Your task to perform on an android device: Go to accessibility settings Image 0: 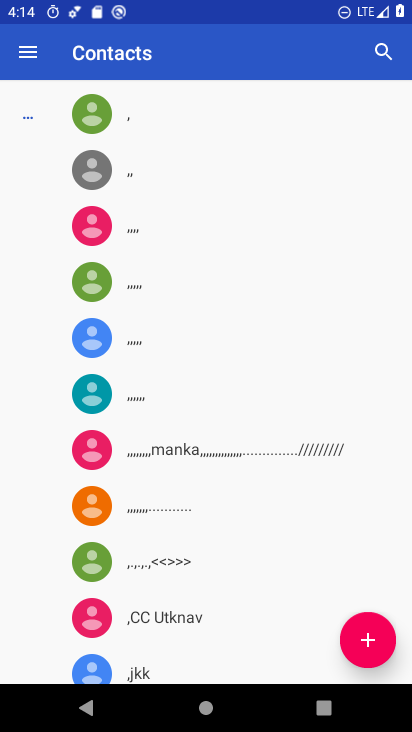
Step 0: press home button
Your task to perform on an android device: Go to accessibility settings Image 1: 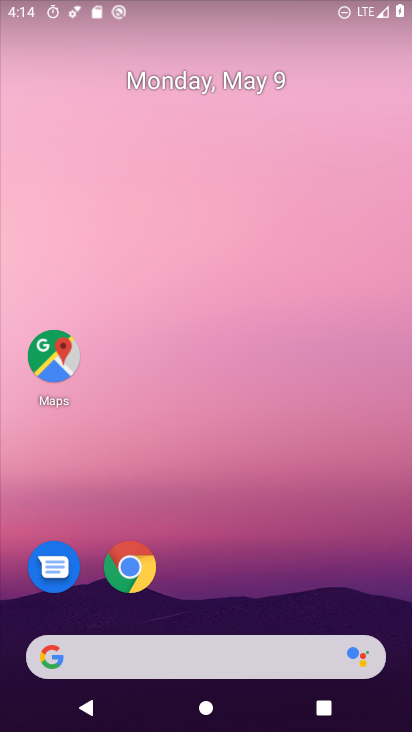
Step 1: drag from (234, 577) to (203, 103)
Your task to perform on an android device: Go to accessibility settings Image 2: 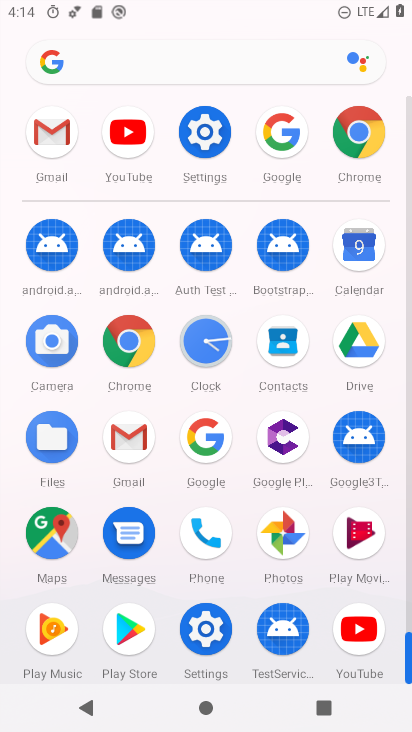
Step 2: click (210, 128)
Your task to perform on an android device: Go to accessibility settings Image 3: 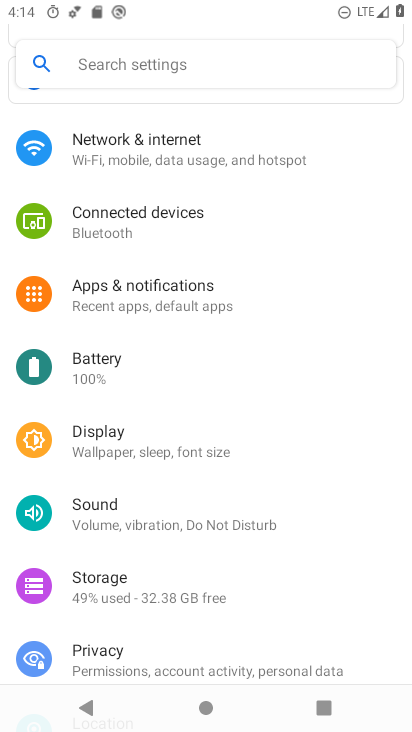
Step 3: drag from (276, 626) to (250, 256)
Your task to perform on an android device: Go to accessibility settings Image 4: 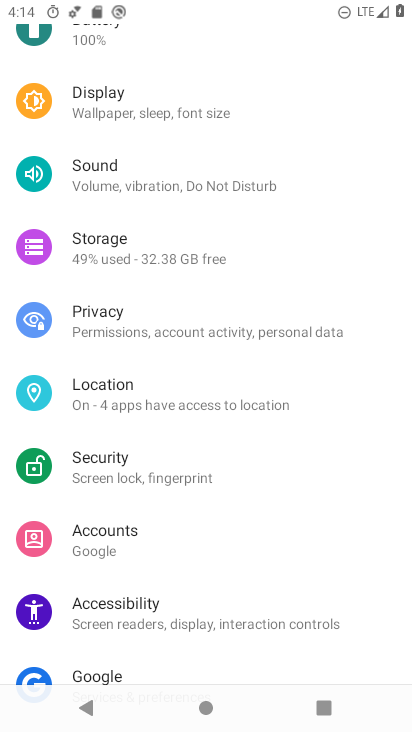
Step 4: drag from (290, 582) to (268, 202)
Your task to perform on an android device: Go to accessibility settings Image 5: 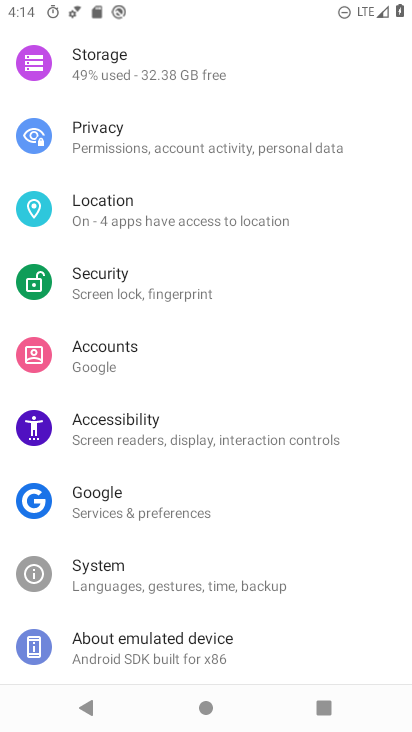
Step 5: click (145, 413)
Your task to perform on an android device: Go to accessibility settings Image 6: 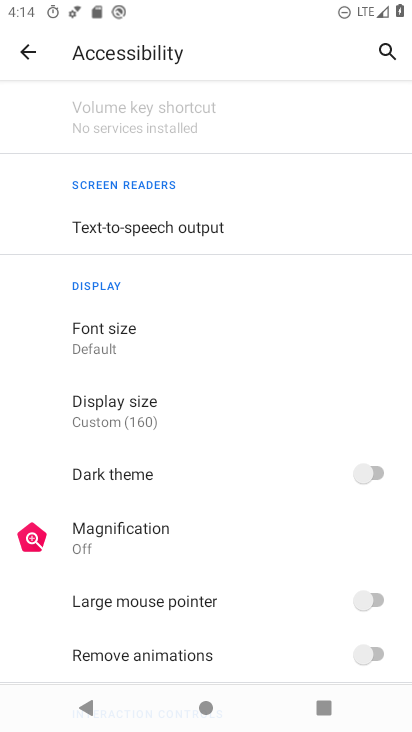
Step 6: task complete